Your task to perform on an android device: What's the weather? Image 0: 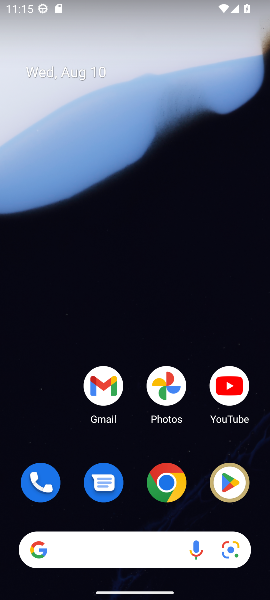
Step 0: click (146, 562)
Your task to perform on an android device: What's the weather? Image 1: 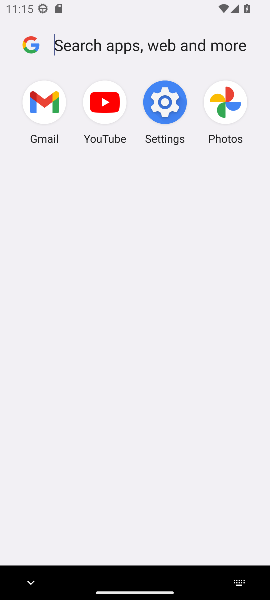
Step 1: type "What's the weather?"
Your task to perform on an android device: What's the weather? Image 2: 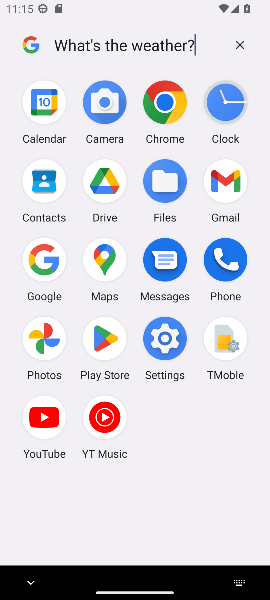
Step 2: type ""
Your task to perform on an android device: What's the weather? Image 3: 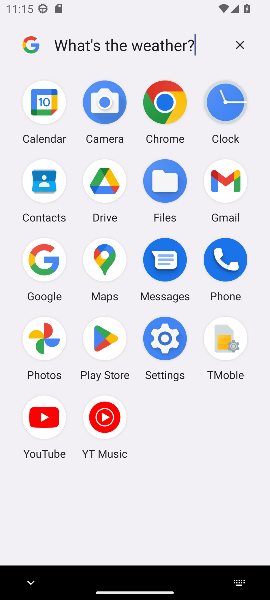
Step 3: press enter
Your task to perform on an android device: What's the weather? Image 4: 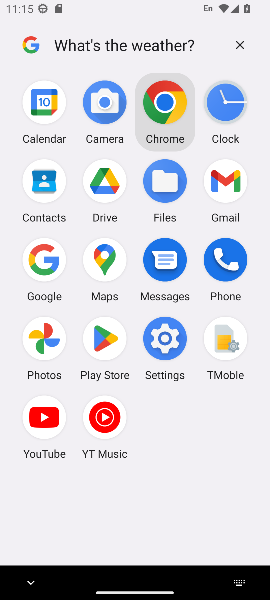
Step 4: task complete